Your task to perform on an android device: check out phone information Image 0: 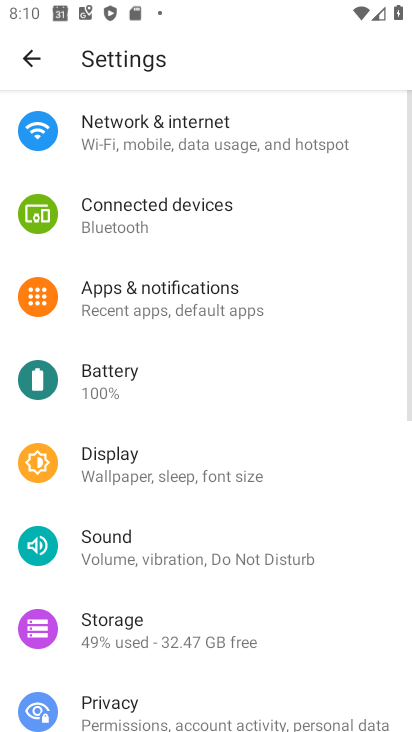
Step 0: press home button
Your task to perform on an android device: check out phone information Image 1: 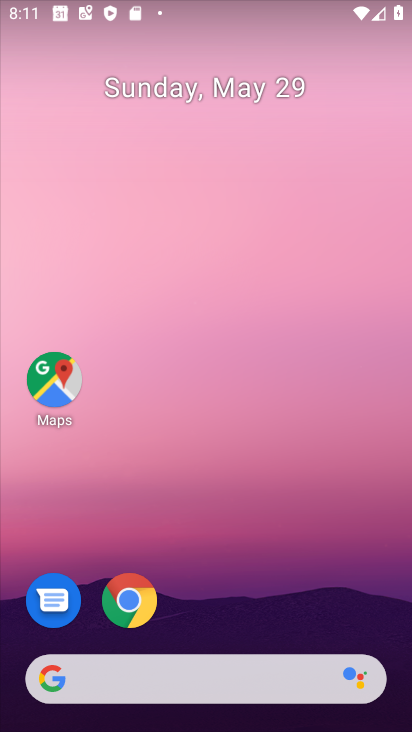
Step 1: drag from (349, 610) to (324, 175)
Your task to perform on an android device: check out phone information Image 2: 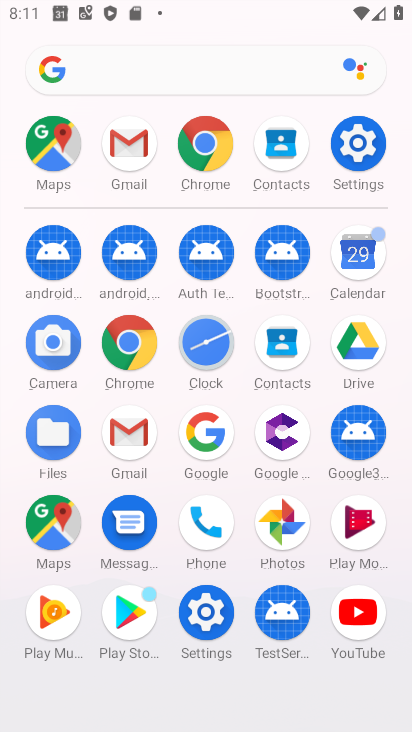
Step 2: click (232, 533)
Your task to perform on an android device: check out phone information Image 3: 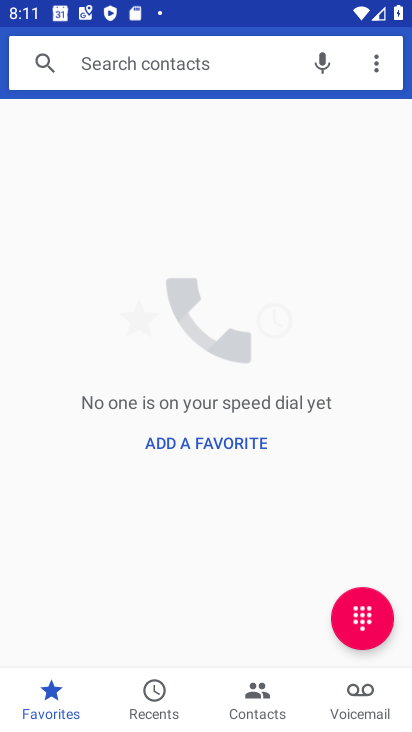
Step 3: task complete